Your task to perform on an android device: When is my next meeting? Image 0: 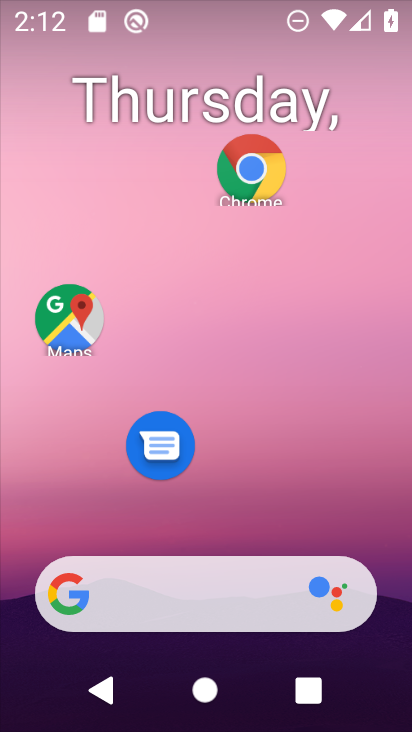
Step 0: drag from (283, 621) to (236, 247)
Your task to perform on an android device: When is my next meeting? Image 1: 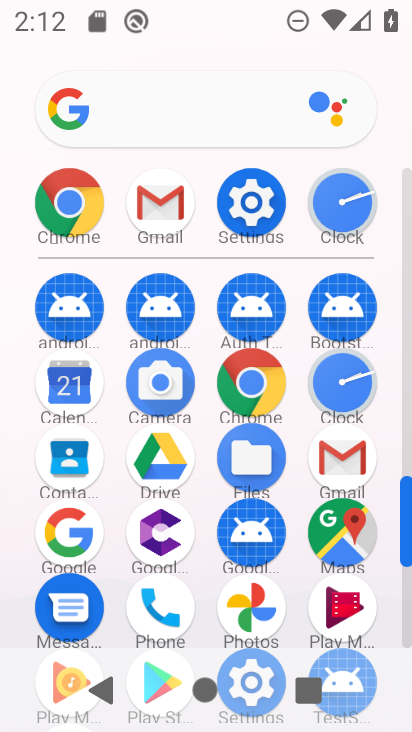
Step 1: click (76, 376)
Your task to perform on an android device: When is my next meeting? Image 2: 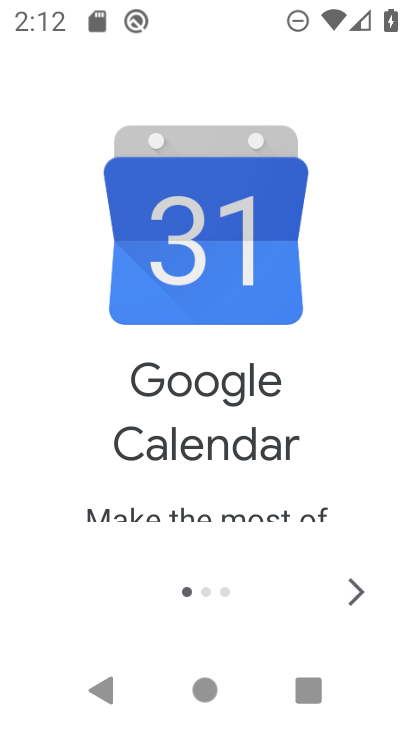
Step 2: click (355, 590)
Your task to perform on an android device: When is my next meeting? Image 3: 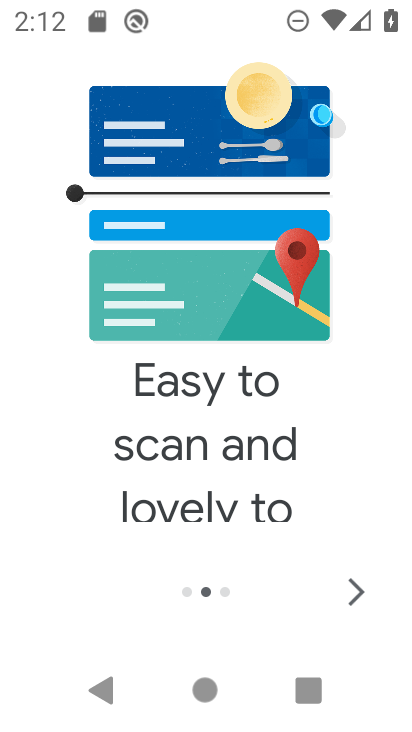
Step 3: click (361, 605)
Your task to perform on an android device: When is my next meeting? Image 4: 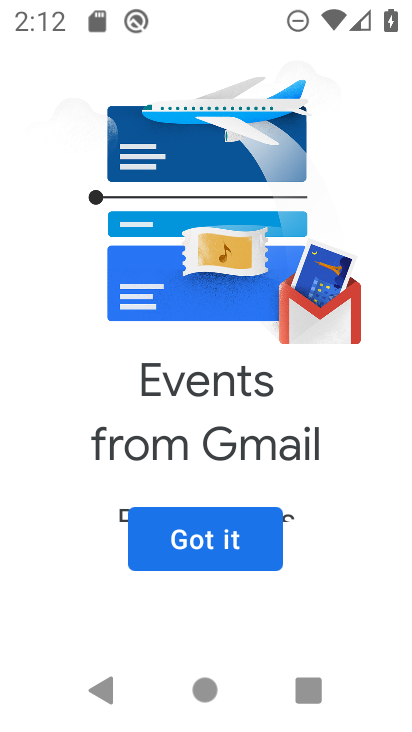
Step 4: click (187, 525)
Your task to perform on an android device: When is my next meeting? Image 5: 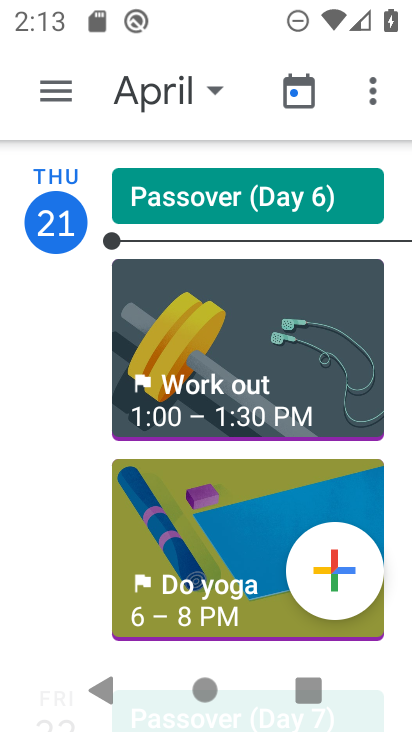
Step 5: click (57, 99)
Your task to perform on an android device: When is my next meeting? Image 6: 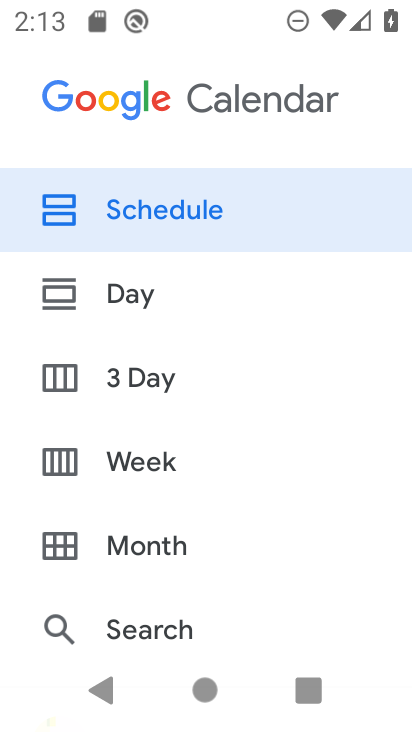
Step 6: click (155, 214)
Your task to perform on an android device: When is my next meeting? Image 7: 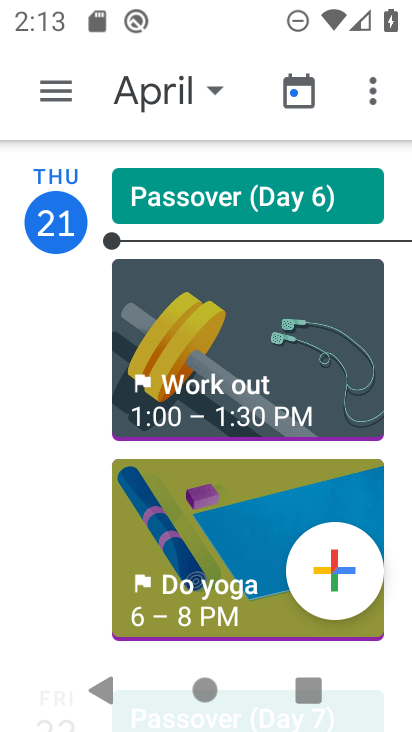
Step 7: task complete